Your task to perform on an android device: toggle javascript in the chrome app Image 0: 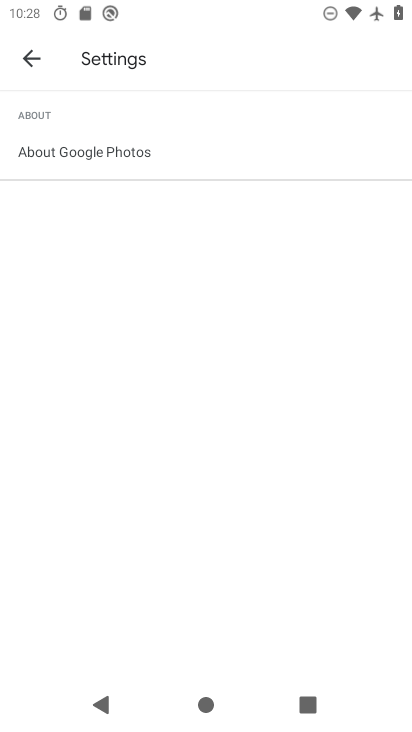
Step 0: press home button
Your task to perform on an android device: toggle javascript in the chrome app Image 1: 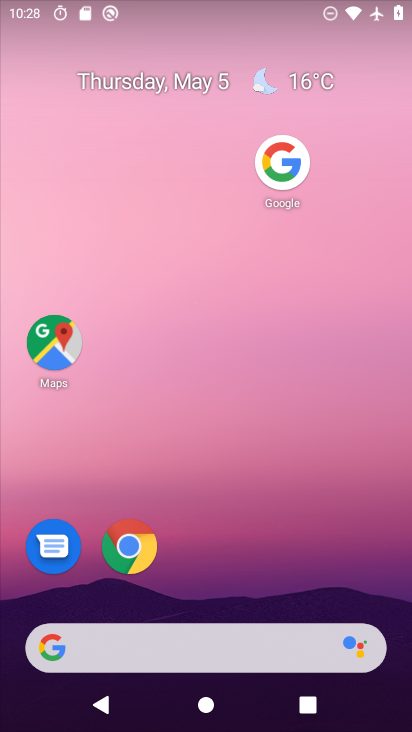
Step 1: drag from (221, 534) to (329, 15)
Your task to perform on an android device: toggle javascript in the chrome app Image 2: 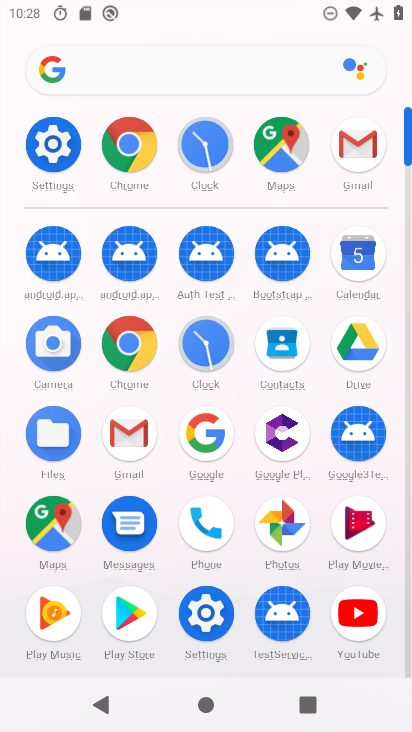
Step 2: click (128, 156)
Your task to perform on an android device: toggle javascript in the chrome app Image 3: 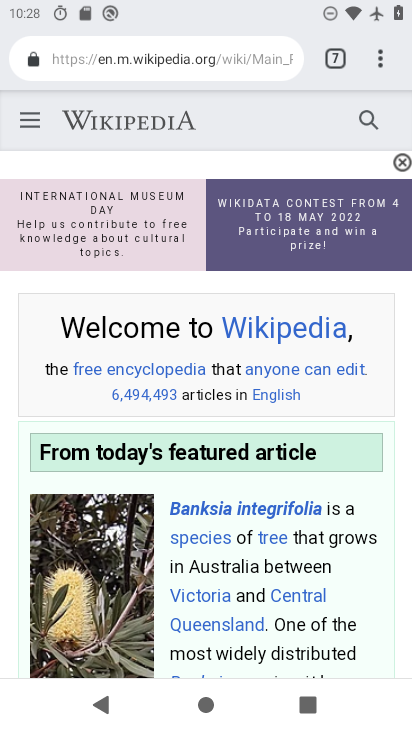
Step 3: drag from (378, 59) to (216, 568)
Your task to perform on an android device: toggle javascript in the chrome app Image 4: 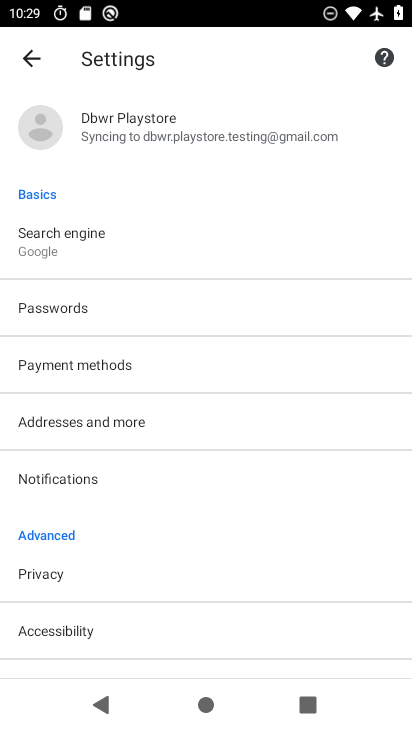
Step 4: drag from (145, 570) to (261, 269)
Your task to perform on an android device: toggle javascript in the chrome app Image 5: 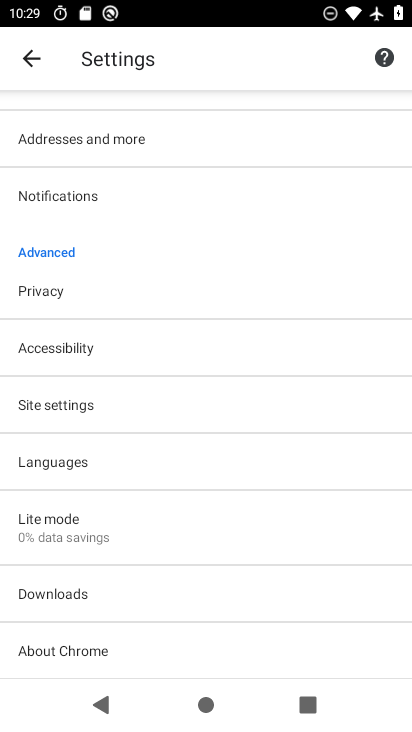
Step 5: click (94, 412)
Your task to perform on an android device: toggle javascript in the chrome app Image 6: 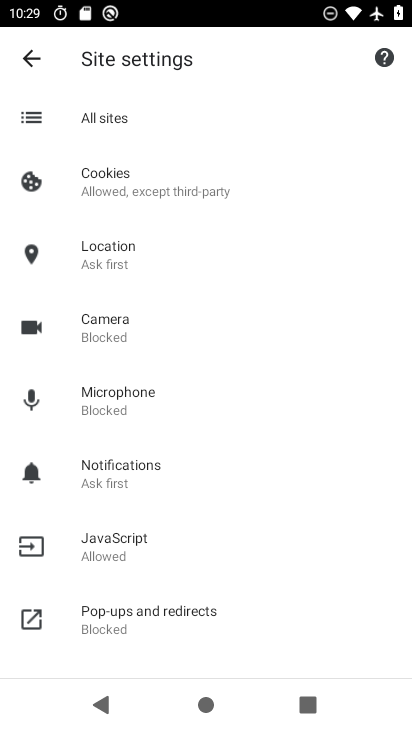
Step 6: click (126, 554)
Your task to perform on an android device: toggle javascript in the chrome app Image 7: 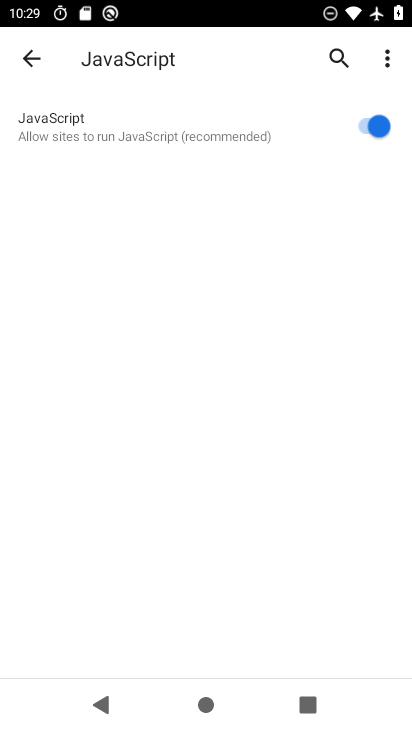
Step 7: click (365, 124)
Your task to perform on an android device: toggle javascript in the chrome app Image 8: 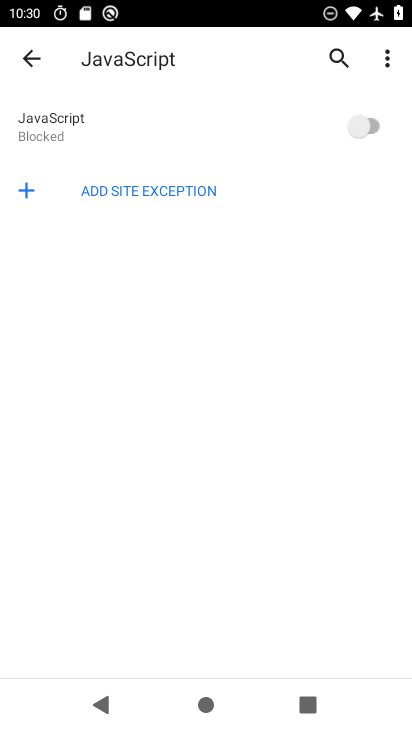
Step 8: task complete